Your task to perform on an android device: turn pop-ups off in chrome Image 0: 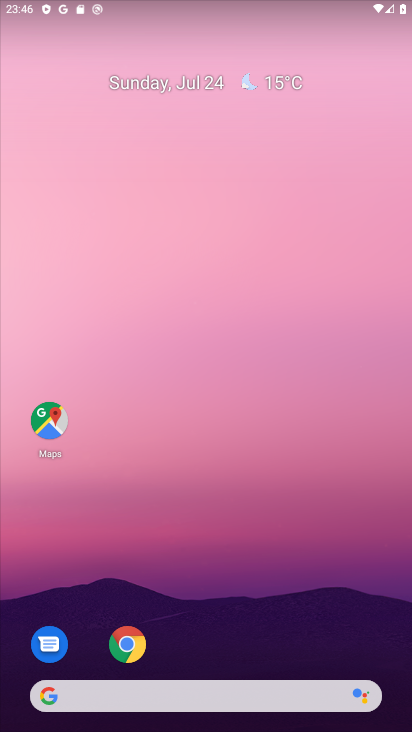
Step 0: click (137, 638)
Your task to perform on an android device: turn pop-ups off in chrome Image 1: 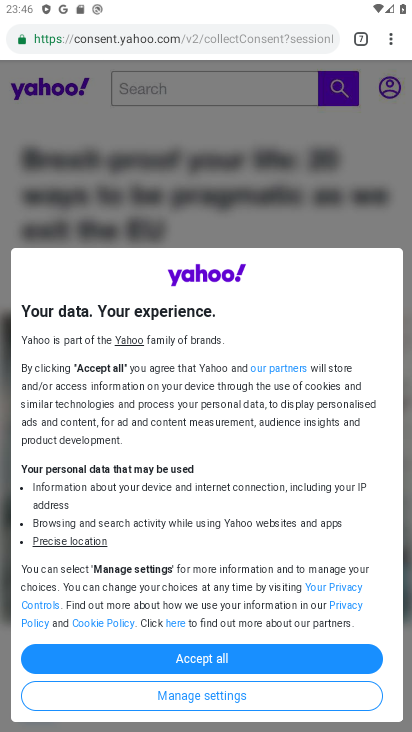
Step 1: click (390, 40)
Your task to perform on an android device: turn pop-ups off in chrome Image 2: 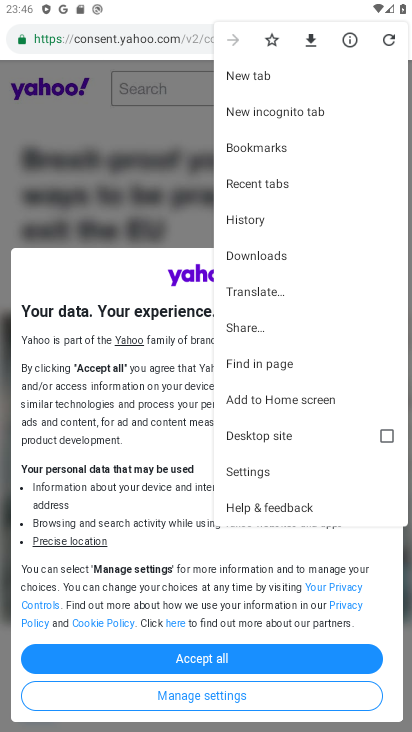
Step 2: click (252, 471)
Your task to perform on an android device: turn pop-ups off in chrome Image 3: 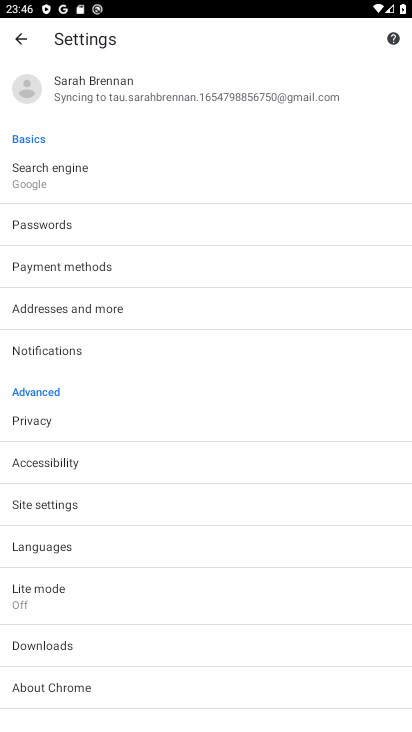
Step 3: click (33, 502)
Your task to perform on an android device: turn pop-ups off in chrome Image 4: 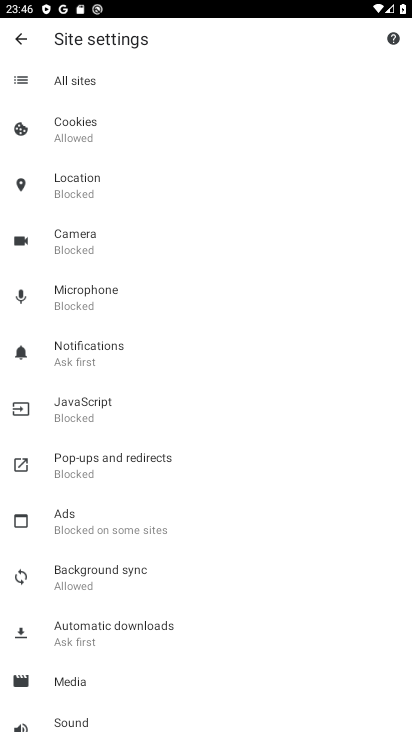
Step 4: click (86, 462)
Your task to perform on an android device: turn pop-ups off in chrome Image 5: 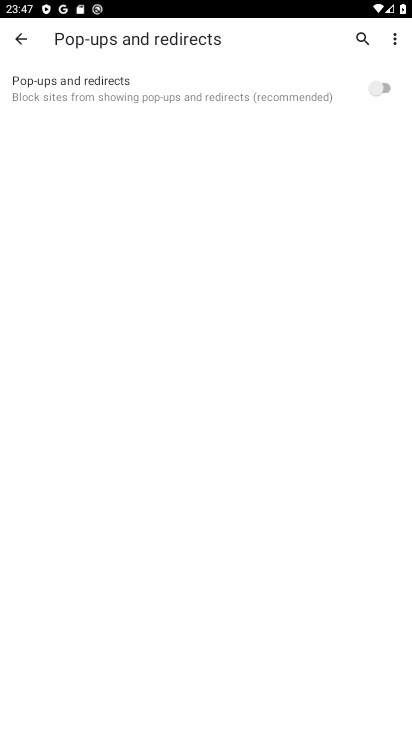
Step 5: task complete